Your task to perform on an android device: toggle priority inbox in the gmail app Image 0: 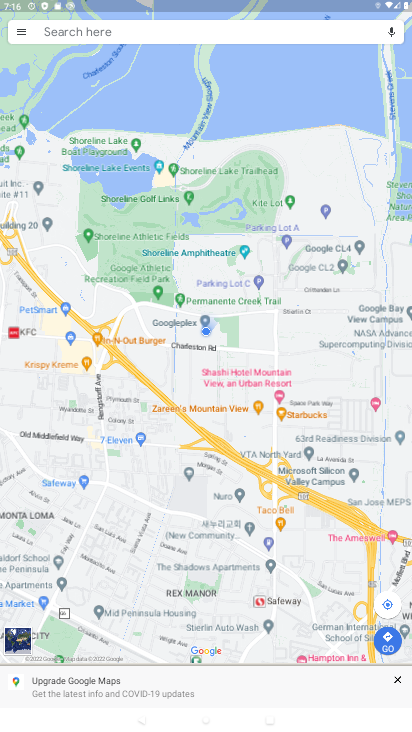
Step 0: press home button
Your task to perform on an android device: toggle priority inbox in the gmail app Image 1: 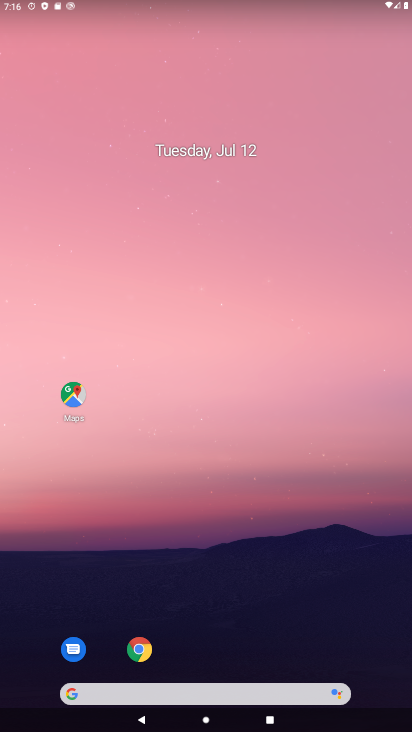
Step 1: drag from (230, 687) to (231, 206)
Your task to perform on an android device: toggle priority inbox in the gmail app Image 2: 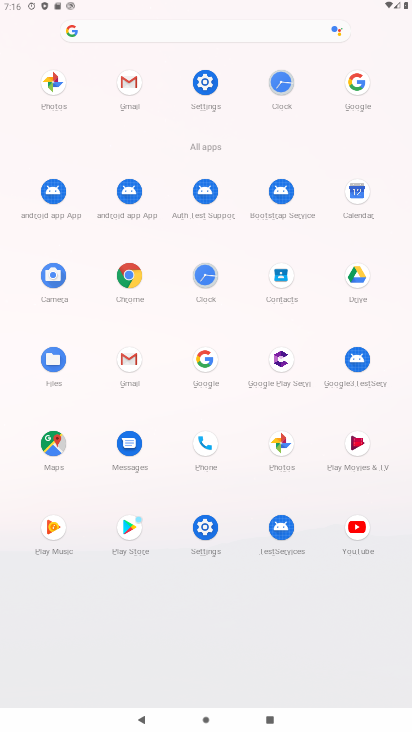
Step 2: click (131, 80)
Your task to perform on an android device: toggle priority inbox in the gmail app Image 3: 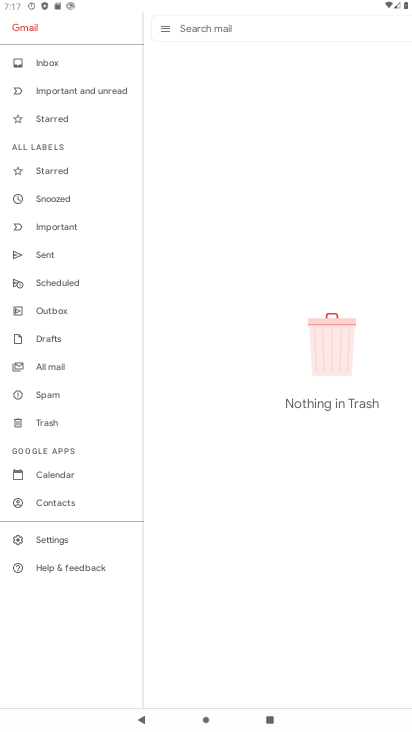
Step 3: click (58, 533)
Your task to perform on an android device: toggle priority inbox in the gmail app Image 4: 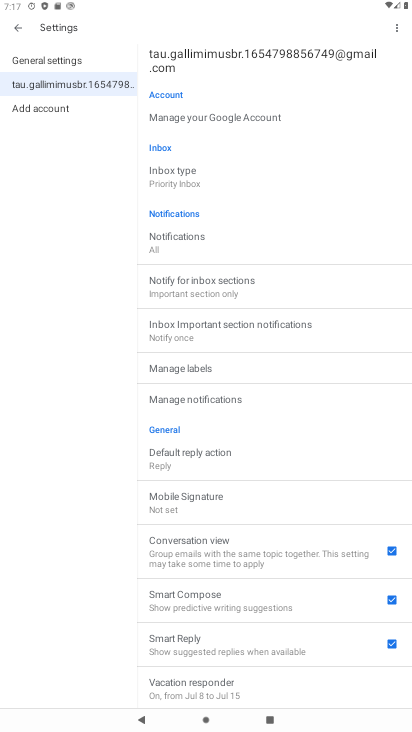
Step 4: click (181, 184)
Your task to perform on an android device: toggle priority inbox in the gmail app Image 5: 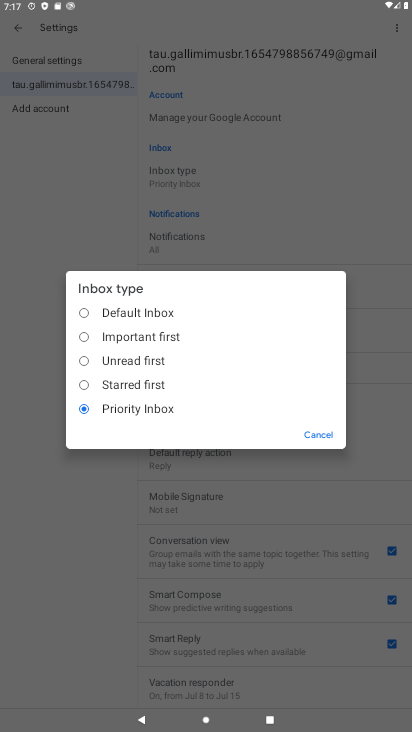
Step 5: click (118, 382)
Your task to perform on an android device: toggle priority inbox in the gmail app Image 6: 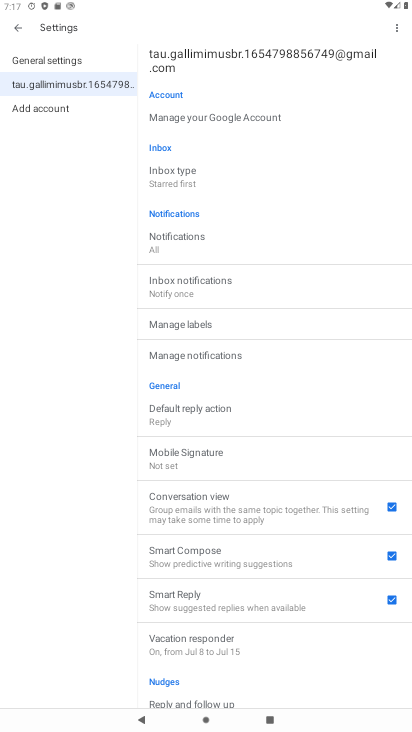
Step 6: task complete